Your task to perform on an android device: turn off smart reply in the gmail app Image 0: 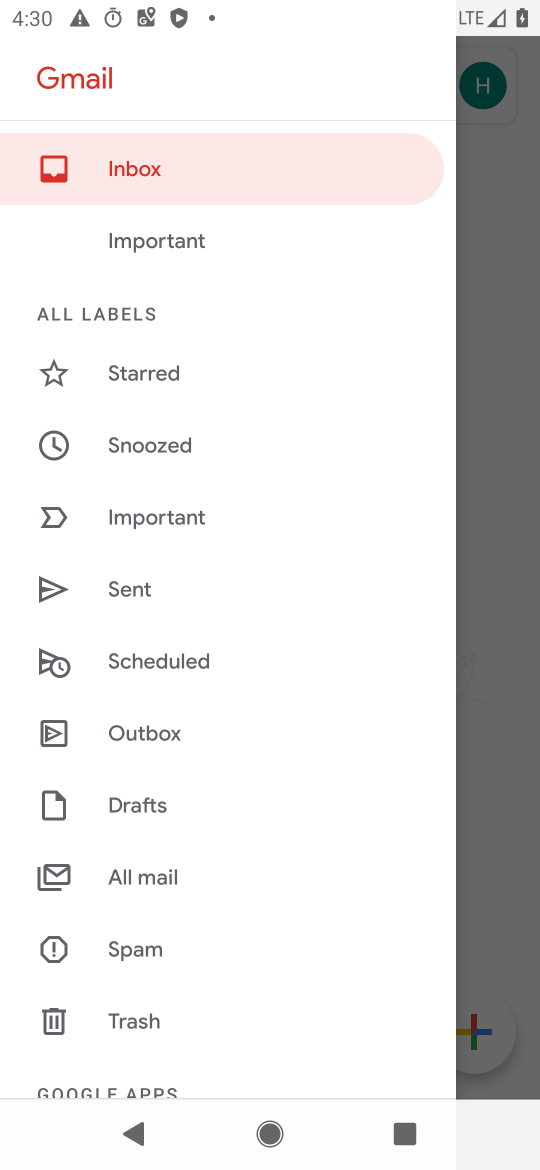
Step 0: press home button
Your task to perform on an android device: turn off smart reply in the gmail app Image 1: 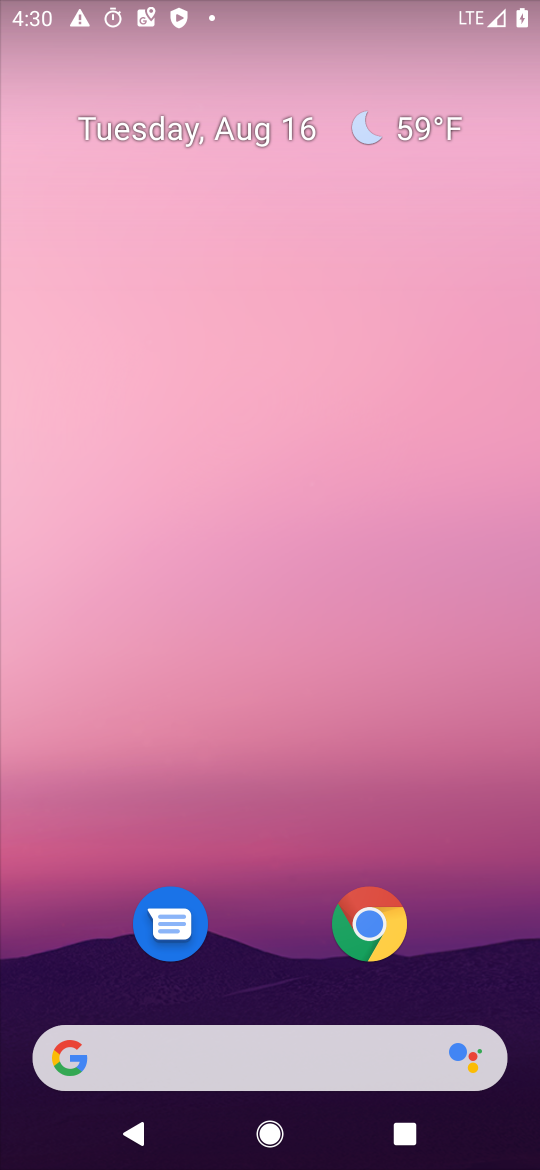
Step 1: drag from (287, 990) to (337, 336)
Your task to perform on an android device: turn off smart reply in the gmail app Image 2: 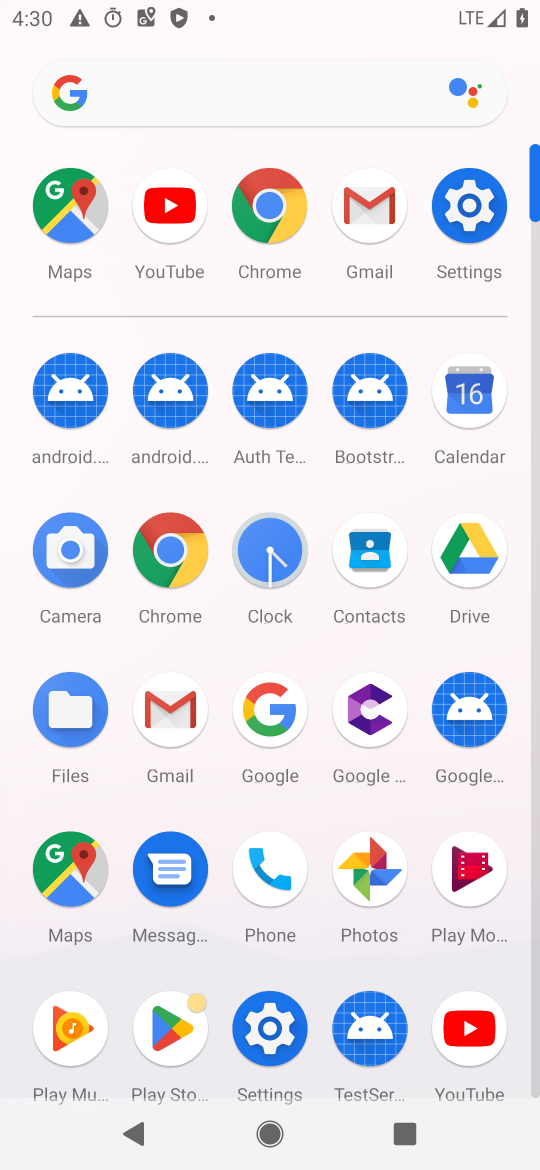
Step 2: click (365, 360)
Your task to perform on an android device: turn off smart reply in the gmail app Image 3: 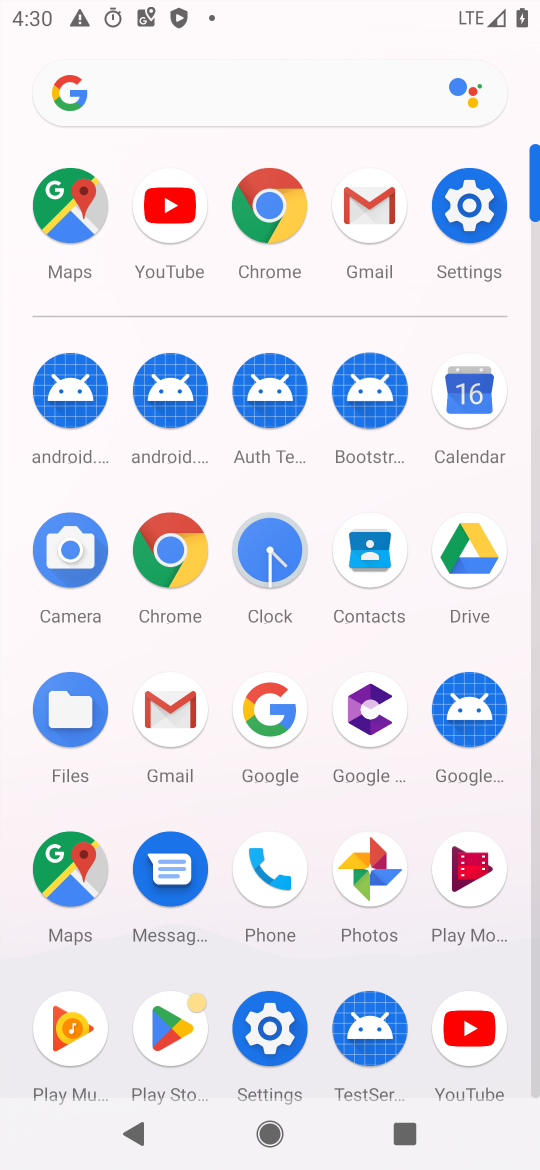
Step 3: click (346, 264)
Your task to perform on an android device: turn off smart reply in the gmail app Image 4: 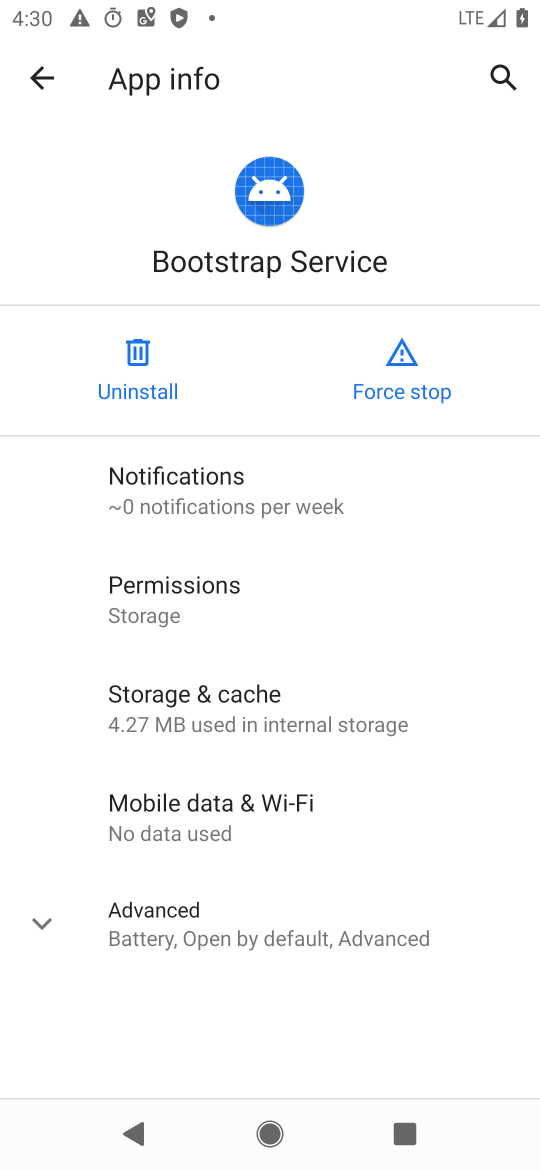
Step 4: click (52, 65)
Your task to perform on an android device: turn off smart reply in the gmail app Image 5: 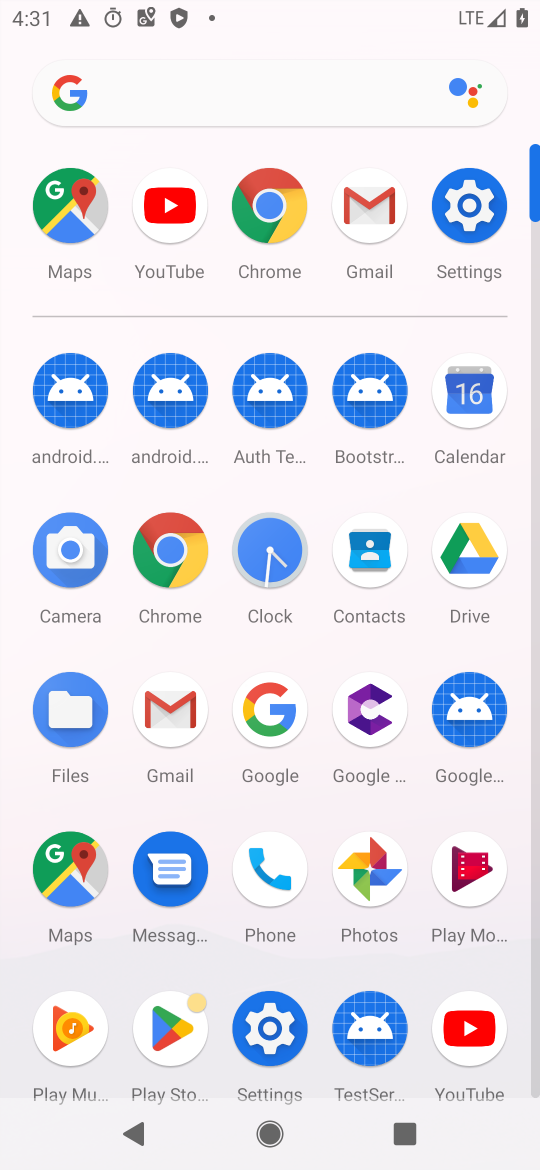
Step 5: click (371, 215)
Your task to perform on an android device: turn off smart reply in the gmail app Image 6: 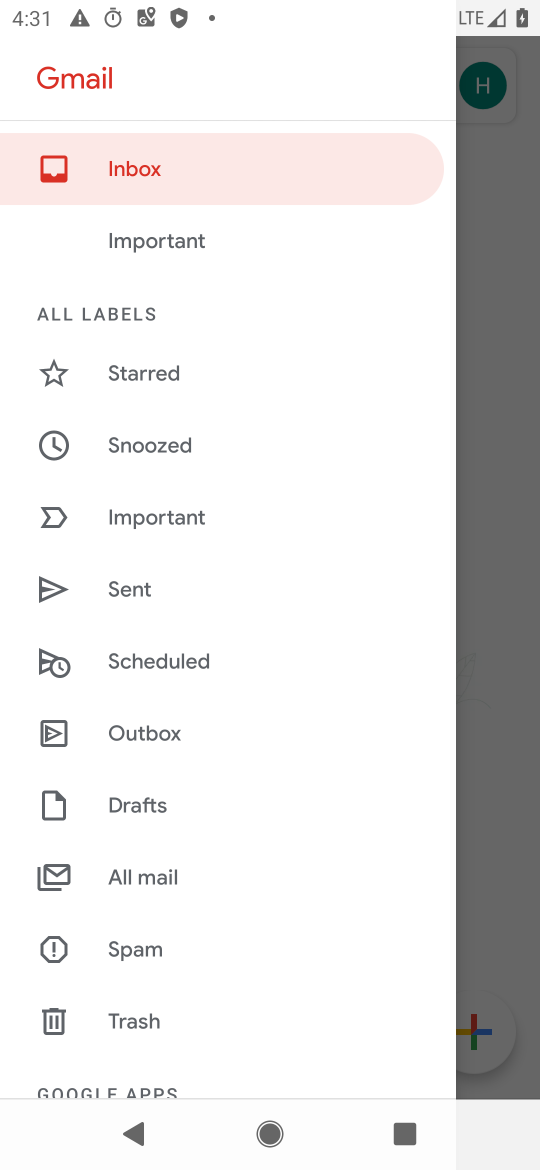
Step 6: drag from (157, 1041) to (232, 402)
Your task to perform on an android device: turn off smart reply in the gmail app Image 7: 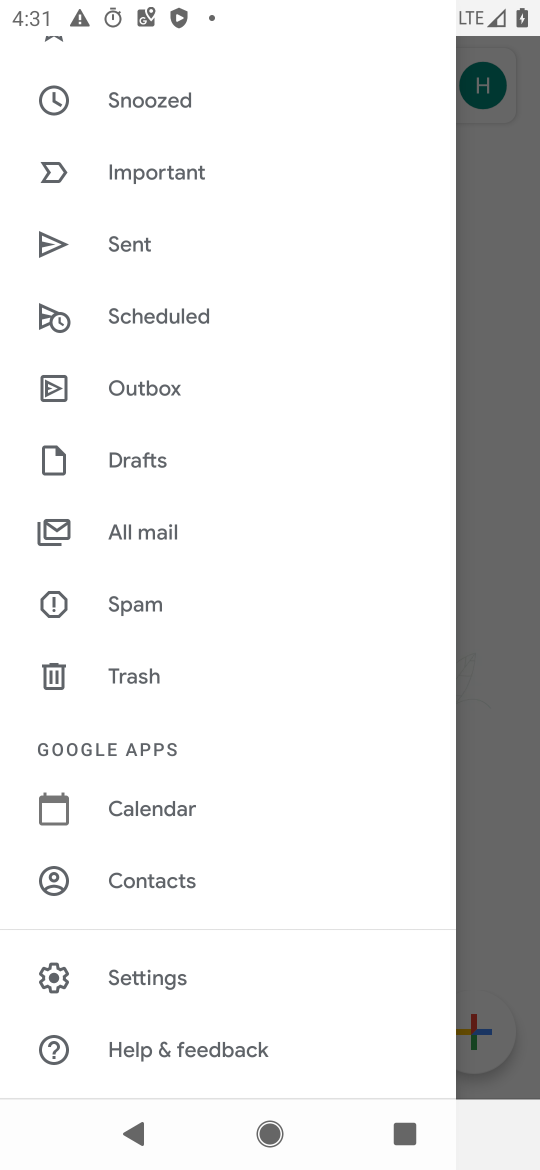
Step 7: click (220, 984)
Your task to perform on an android device: turn off smart reply in the gmail app Image 8: 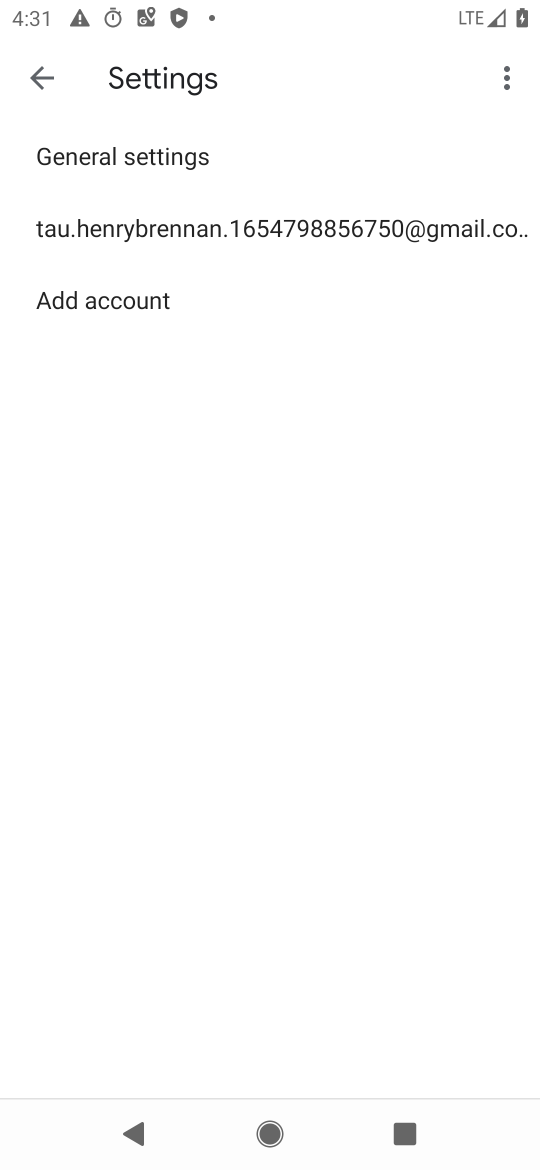
Step 8: click (315, 239)
Your task to perform on an android device: turn off smart reply in the gmail app Image 9: 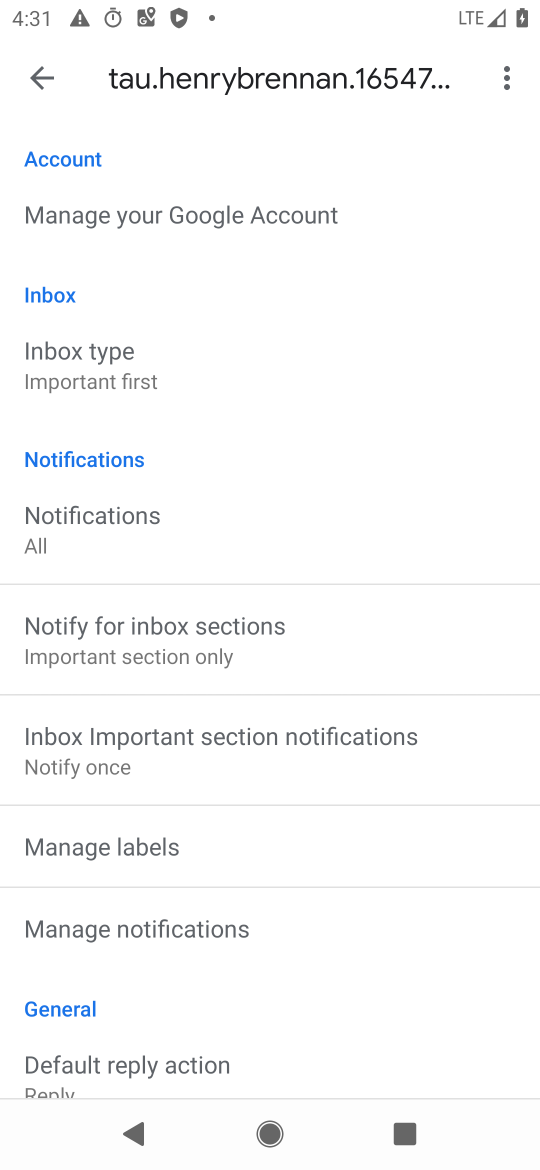
Step 9: drag from (263, 952) to (317, 272)
Your task to perform on an android device: turn off smart reply in the gmail app Image 10: 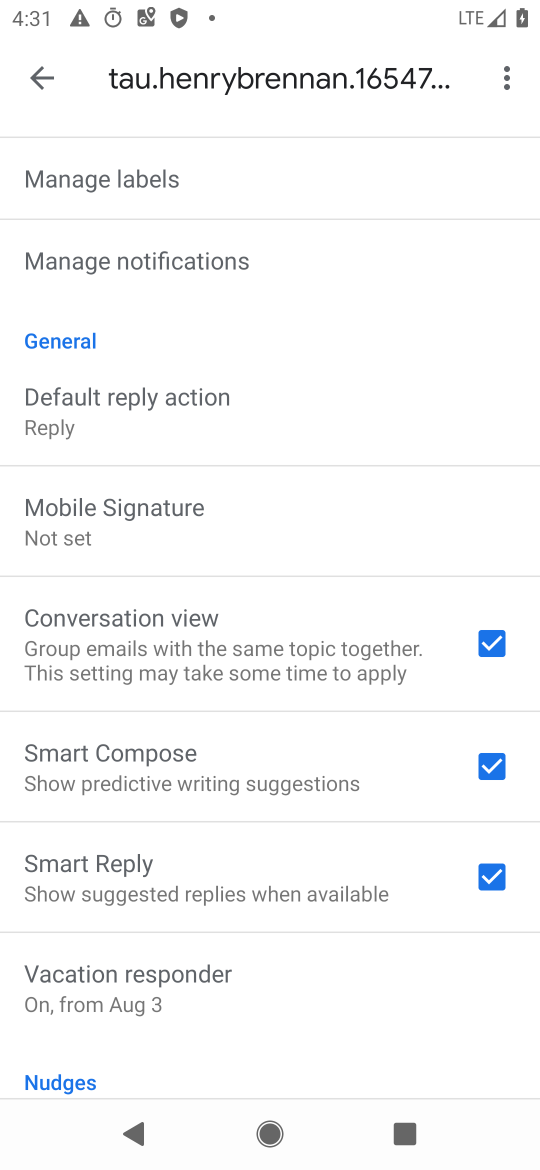
Step 10: click (501, 870)
Your task to perform on an android device: turn off smart reply in the gmail app Image 11: 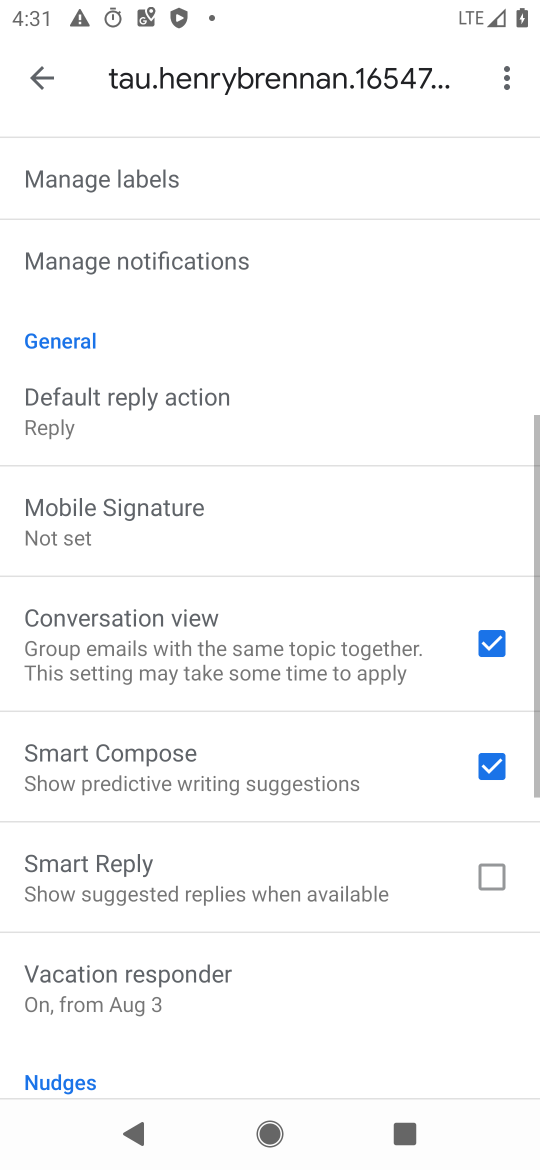
Step 11: task complete